Your task to perform on an android device: Open Youtube and go to the subscriptions tab Image 0: 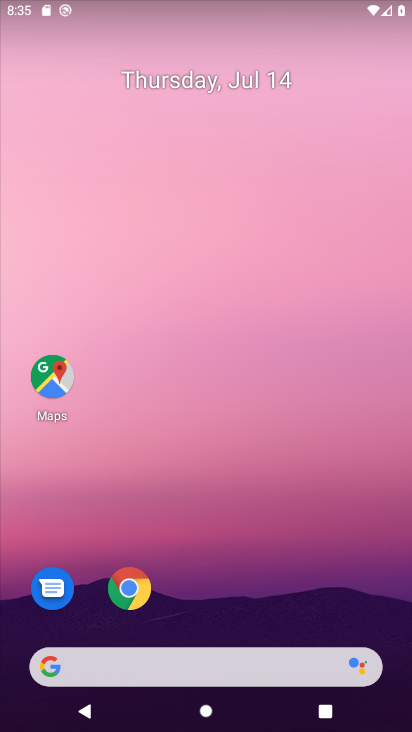
Step 0: drag from (364, 577) to (365, 68)
Your task to perform on an android device: Open Youtube and go to the subscriptions tab Image 1: 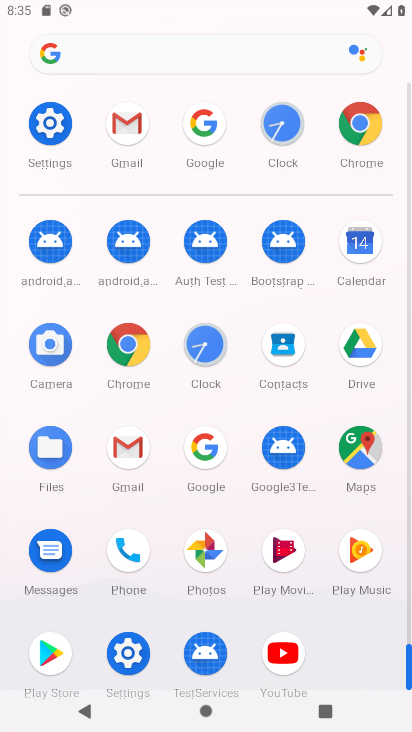
Step 1: click (287, 651)
Your task to perform on an android device: Open Youtube and go to the subscriptions tab Image 2: 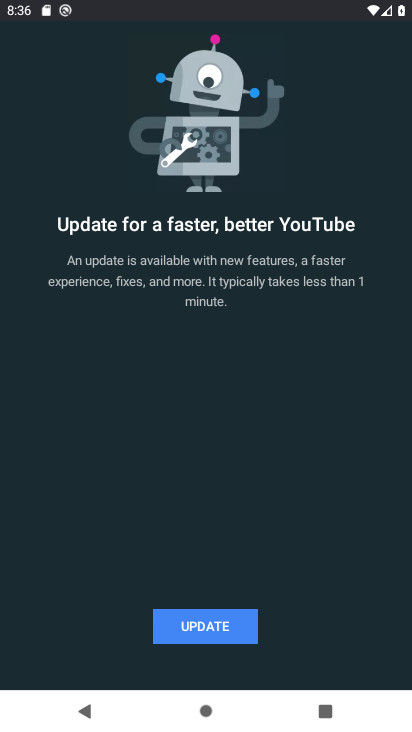
Step 2: click (237, 624)
Your task to perform on an android device: Open Youtube and go to the subscriptions tab Image 3: 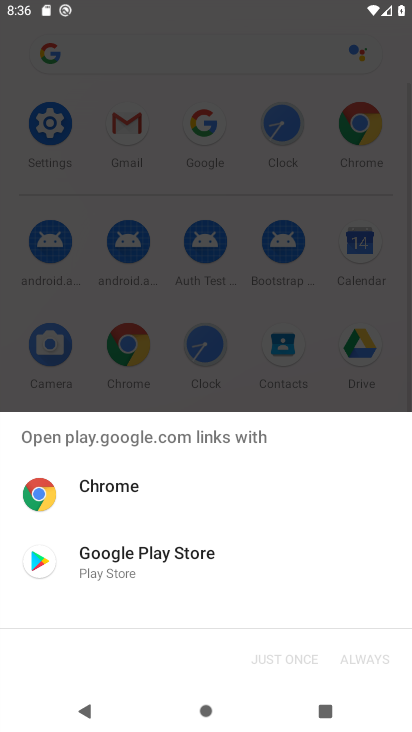
Step 3: click (174, 564)
Your task to perform on an android device: Open Youtube and go to the subscriptions tab Image 4: 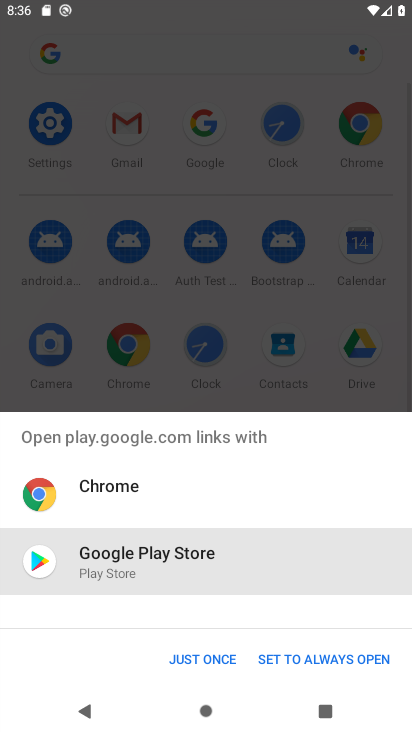
Step 4: click (198, 658)
Your task to perform on an android device: Open Youtube and go to the subscriptions tab Image 5: 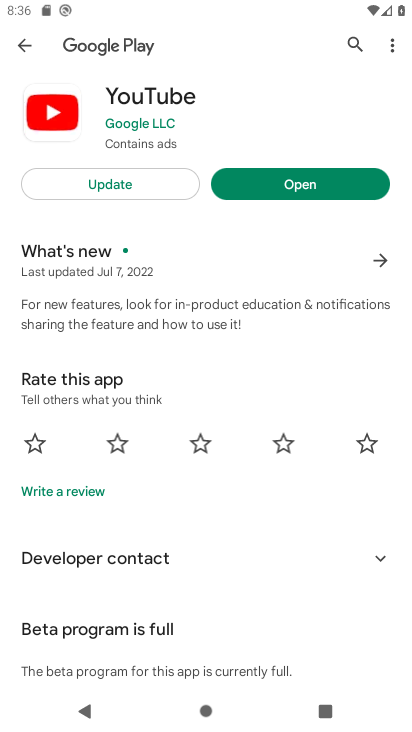
Step 5: click (148, 191)
Your task to perform on an android device: Open Youtube and go to the subscriptions tab Image 6: 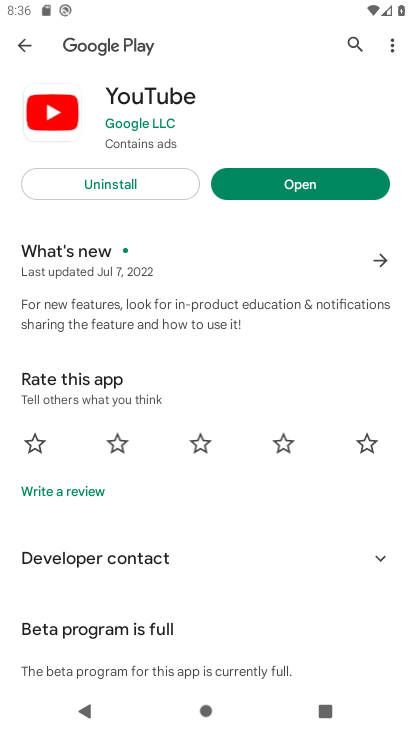
Step 6: click (331, 176)
Your task to perform on an android device: Open Youtube and go to the subscriptions tab Image 7: 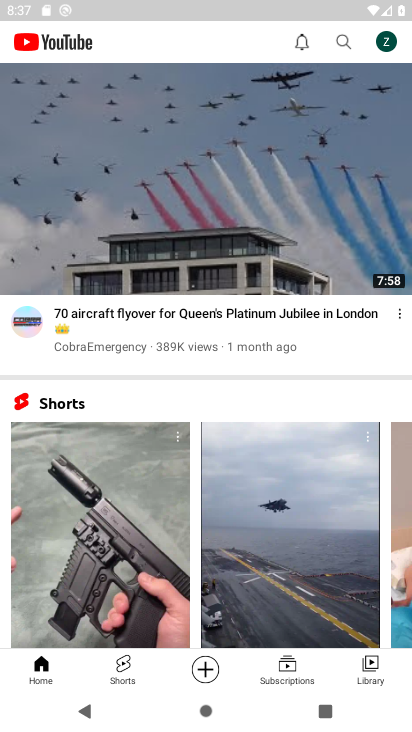
Step 7: click (280, 671)
Your task to perform on an android device: Open Youtube and go to the subscriptions tab Image 8: 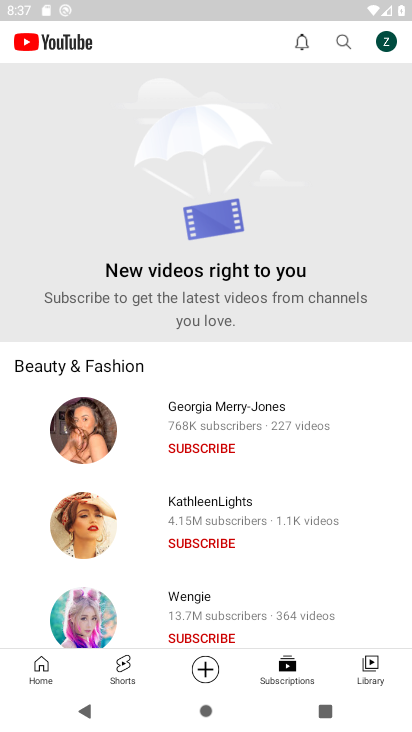
Step 8: task complete